Your task to perform on an android device: turn on wifi Image 0: 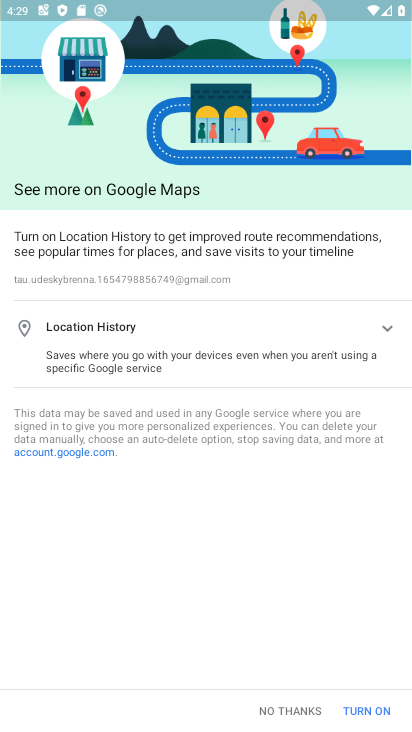
Step 0: press back button
Your task to perform on an android device: turn on wifi Image 1: 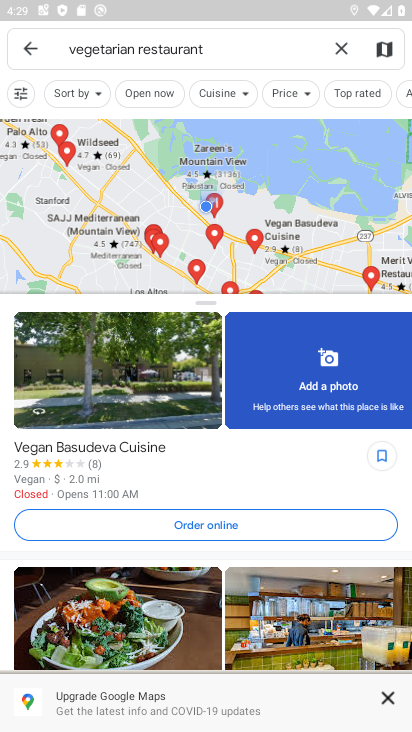
Step 1: task complete